Your task to perform on an android device: Search for pizza restaurants on Maps Image 0: 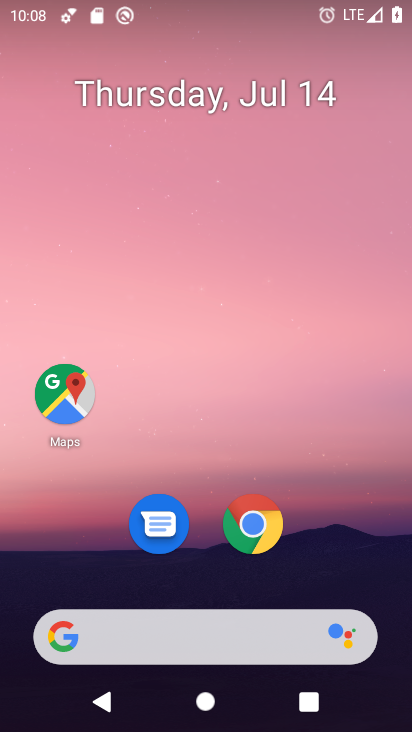
Step 0: drag from (332, 540) to (352, 37)
Your task to perform on an android device: Search for pizza restaurants on Maps Image 1: 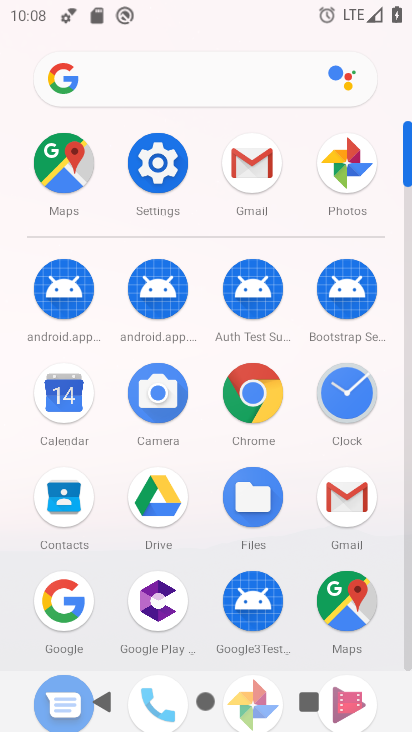
Step 1: click (68, 166)
Your task to perform on an android device: Search for pizza restaurants on Maps Image 2: 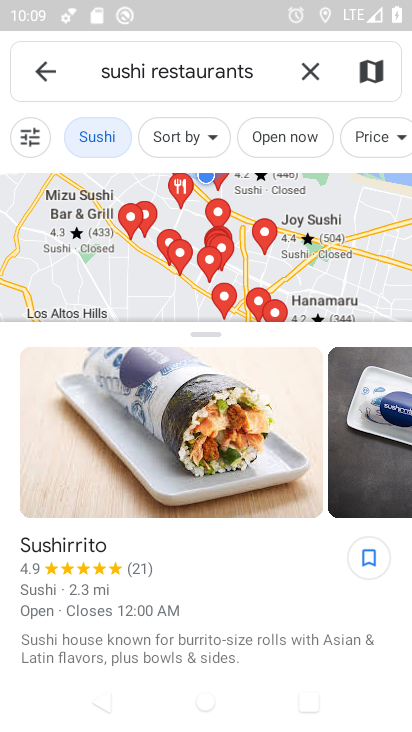
Step 2: click (41, 66)
Your task to perform on an android device: Search for pizza restaurants on Maps Image 3: 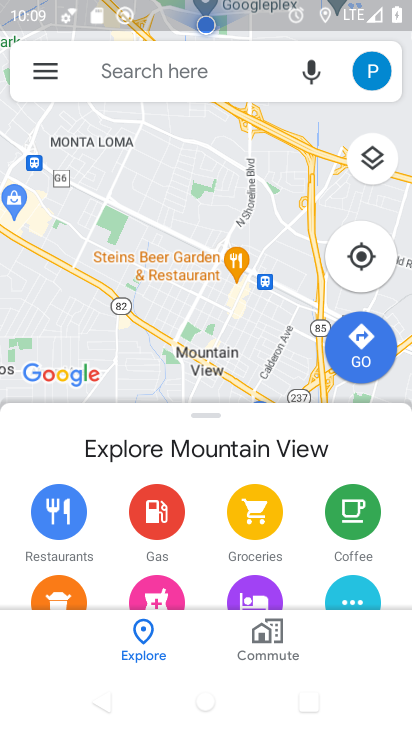
Step 3: click (169, 65)
Your task to perform on an android device: Search for pizza restaurants on Maps Image 4: 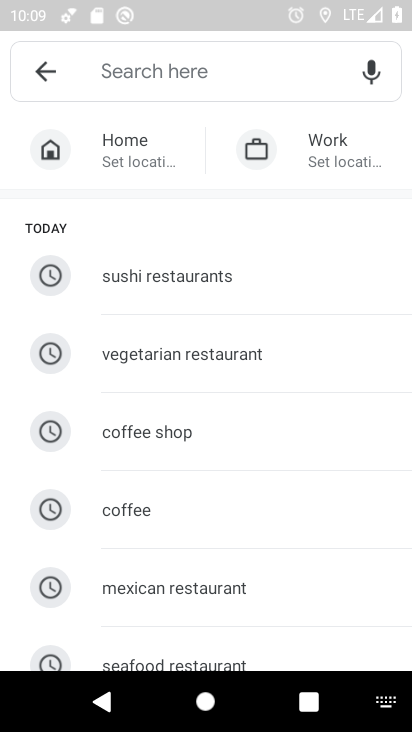
Step 4: drag from (213, 509) to (293, 221)
Your task to perform on an android device: Search for pizza restaurants on Maps Image 5: 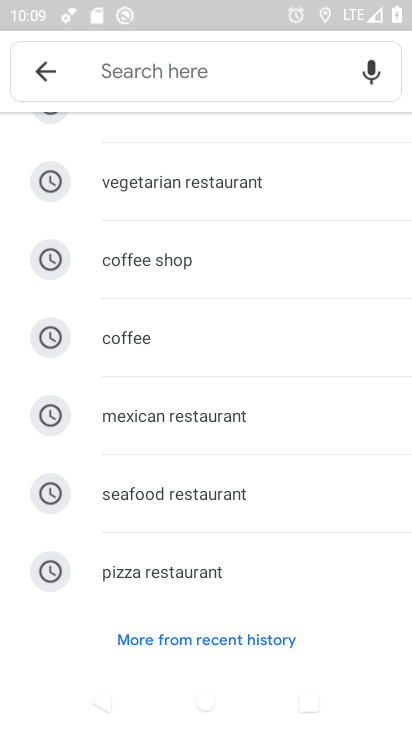
Step 5: click (189, 562)
Your task to perform on an android device: Search for pizza restaurants on Maps Image 6: 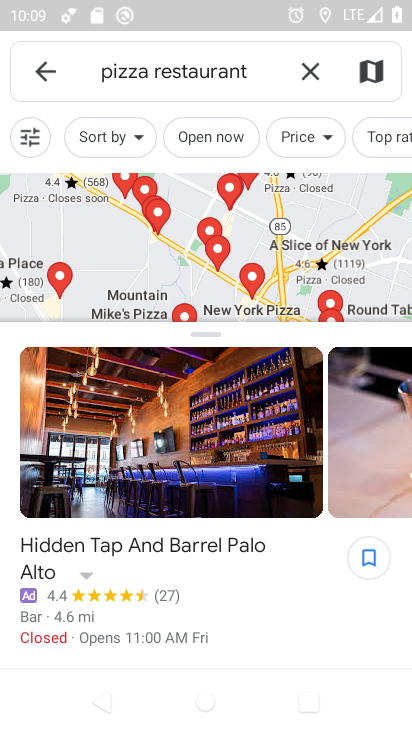
Step 6: task complete